Your task to perform on an android device: check google app version Image 0: 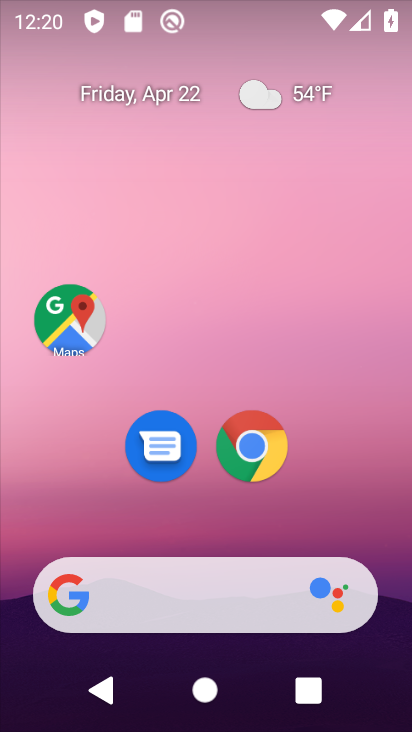
Step 0: drag from (345, 537) to (335, 193)
Your task to perform on an android device: check google app version Image 1: 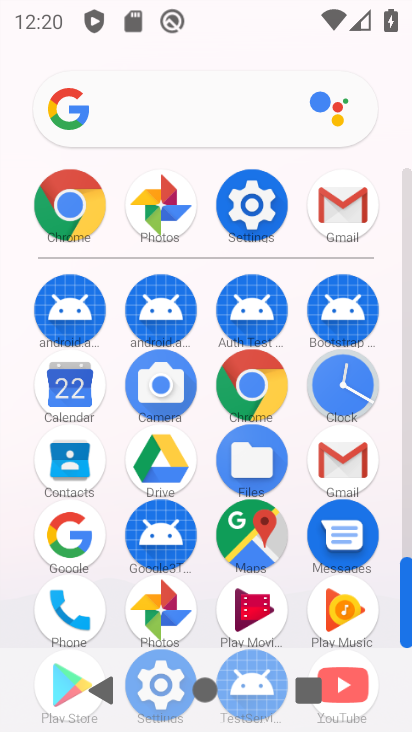
Step 1: click (248, 384)
Your task to perform on an android device: check google app version Image 2: 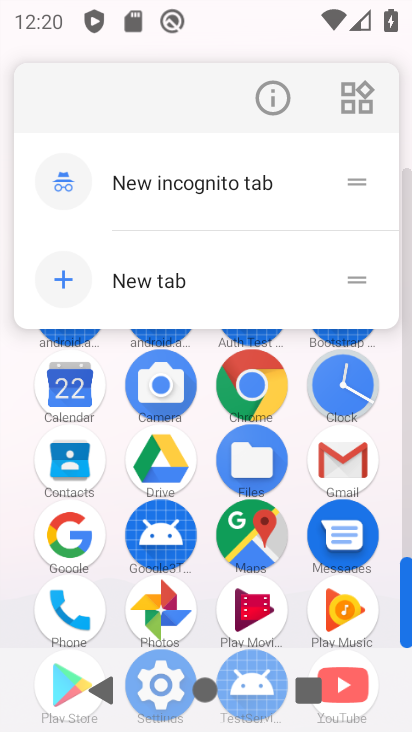
Step 2: click (275, 108)
Your task to perform on an android device: check google app version Image 3: 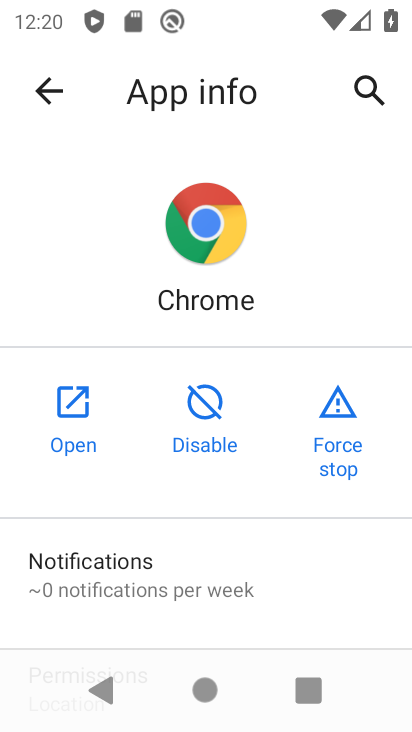
Step 3: drag from (259, 549) to (223, 179)
Your task to perform on an android device: check google app version Image 4: 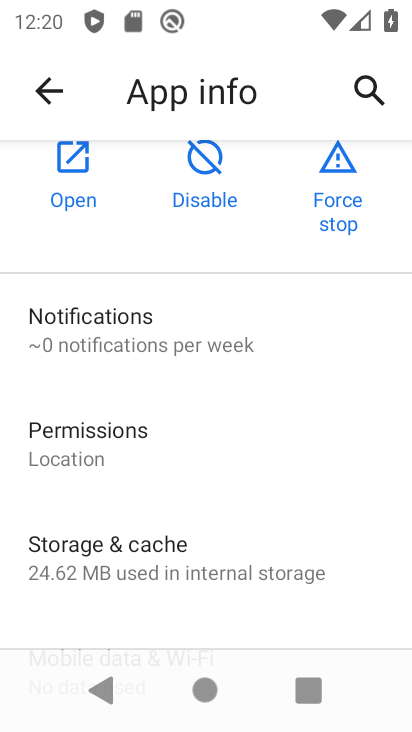
Step 4: drag from (243, 616) to (252, 318)
Your task to perform on an android device: check google app version Image 5: 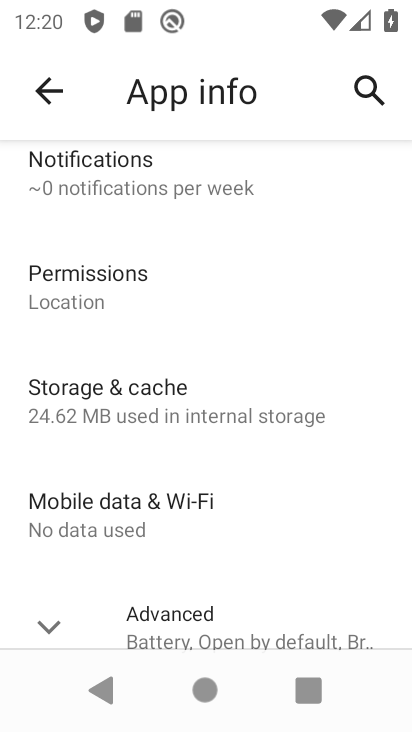
Step 5: drag from (278, 541) to (281, 304)
Your task to perform on an android device: check google app version Image 6: 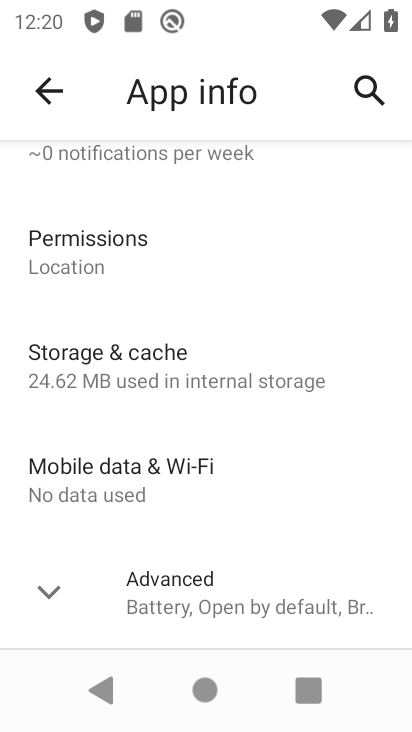
Step 6: click (234, 602)
Your task to perform on an android device: check google app version Image 7: 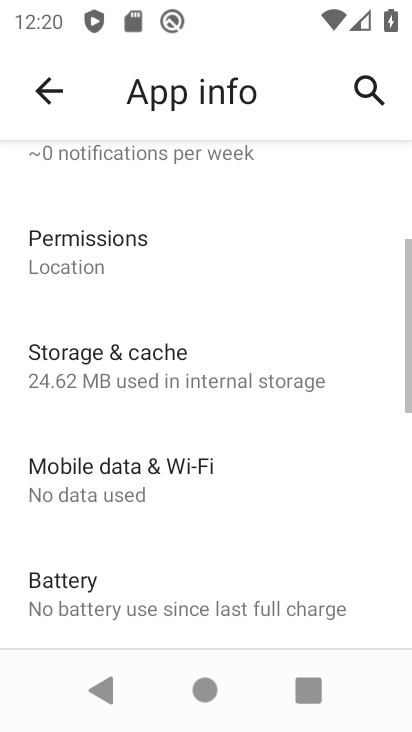
Step 7: task complete